Your task to perform on an android device: Open internet settings Image 0: 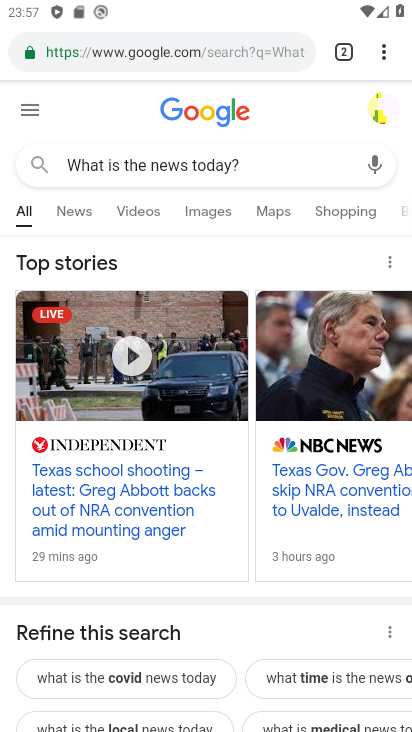
Step 0: press home button
Your task to perform on an android device: Open internet settings Image 1: 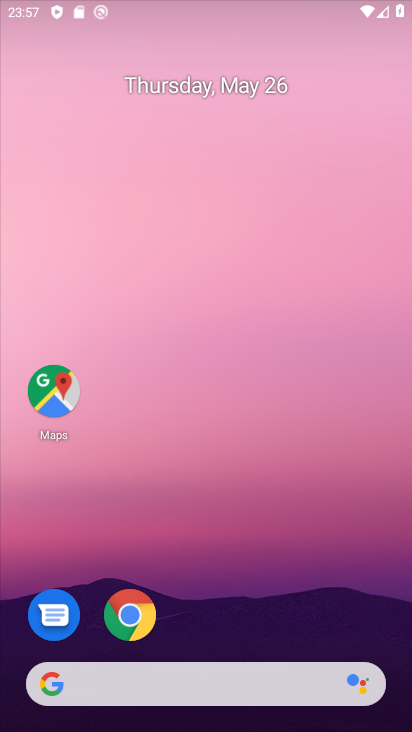
Step 1: drag from (310, 596) to (259, 215)
Your task to perform on an android device: Open internet settings Image 2: 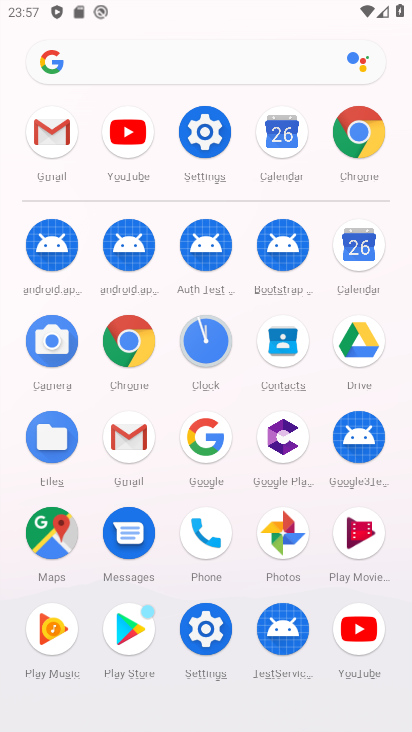
Step 2: click (213, 117)
Your task to perform on an android device: Open internet settings Image 3: 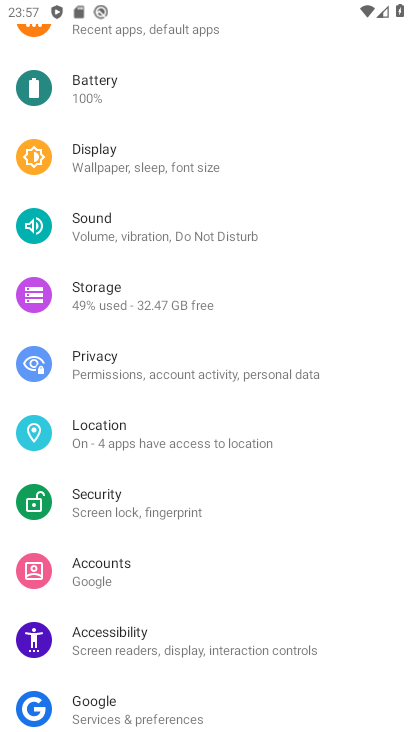
Step 3: drag from (213, 117) to (211, 728)
Your task to perform on an android device: Open internet settings Image 4: 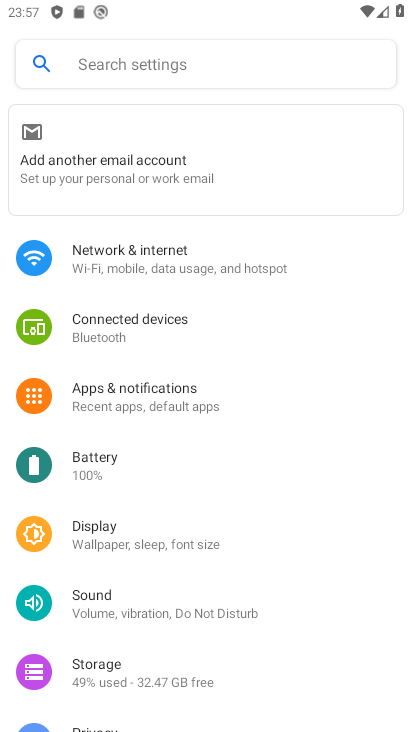
Step 4: click (118, 226)
Your task to perform on an android device: Open internet settings Image 5: 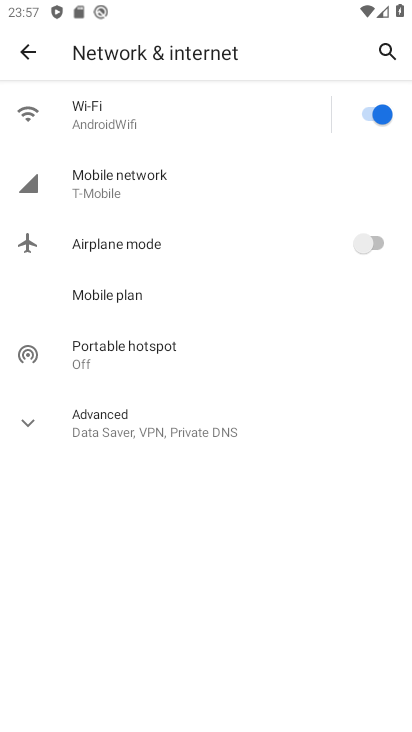
Step 5: task complete